Your task to perform on an android device: Show me a list of home improvement items on the Home Depot website. Image 0: 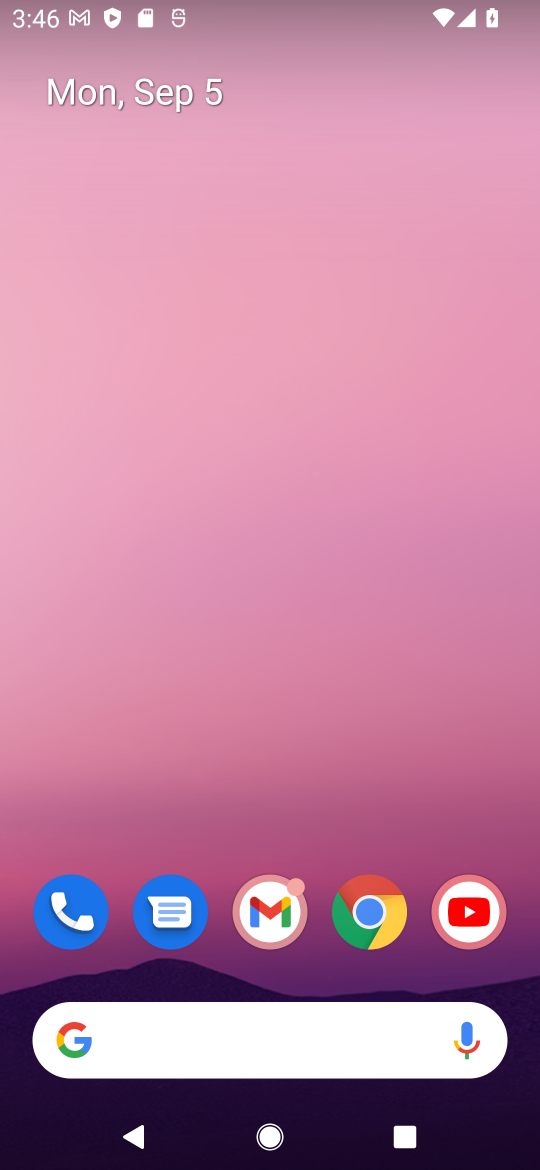
Step 0: click (377, 929)
Your task to perform on an android device: Show me a list of home improvement items on the Home Depot website. Image 1: 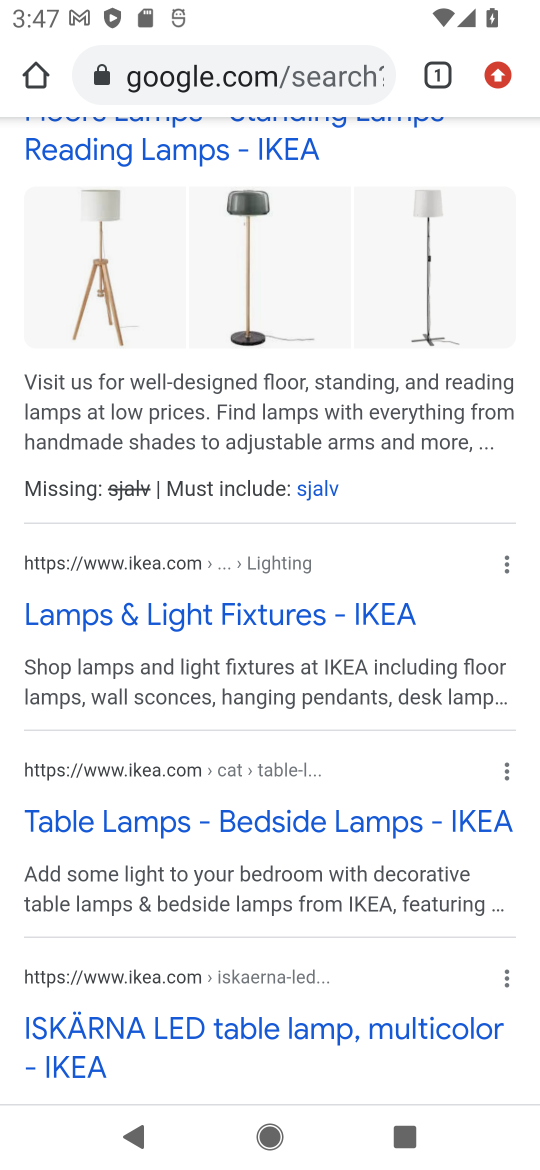
Step 1: click (269, 68)
Your task to perform on an android device: Show me a list of home improvement items on the Home Depot website. Image 2: 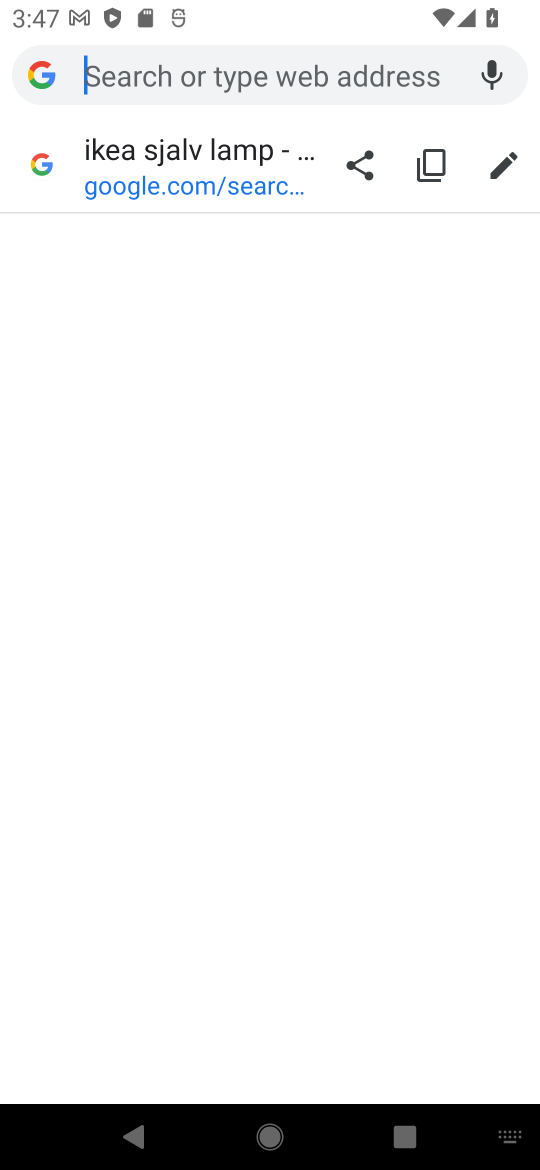
Step 2: type "home depot"
Your task to perform on an android device: Show me a list of home improvement items on the Home Depot website. Image 3: 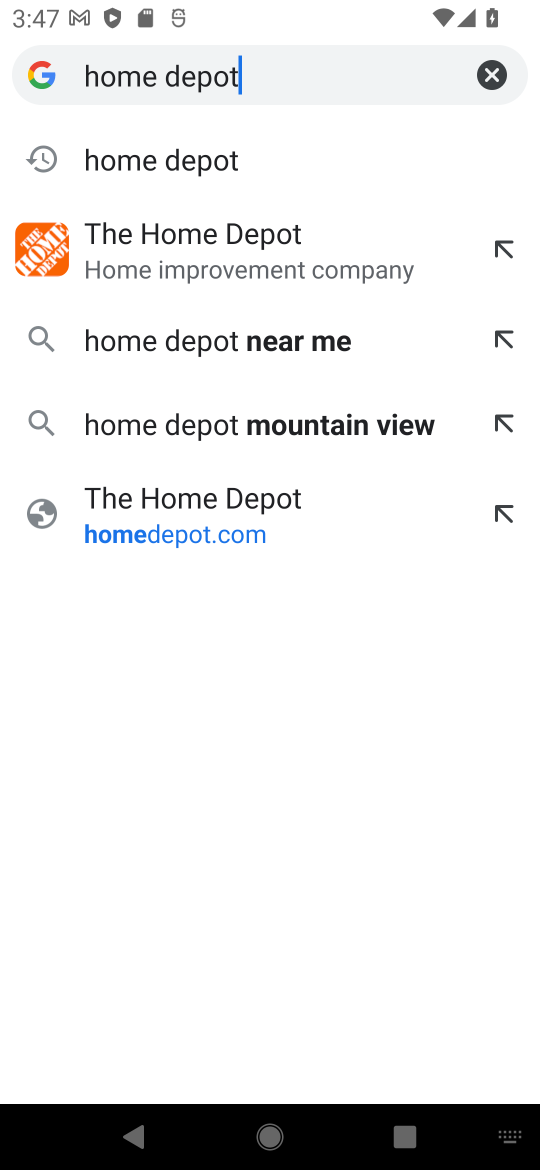
Step 3: press enter
Your task to perform on an android device: Show me a list of home improvement items on the Home Depot website. Image 4: 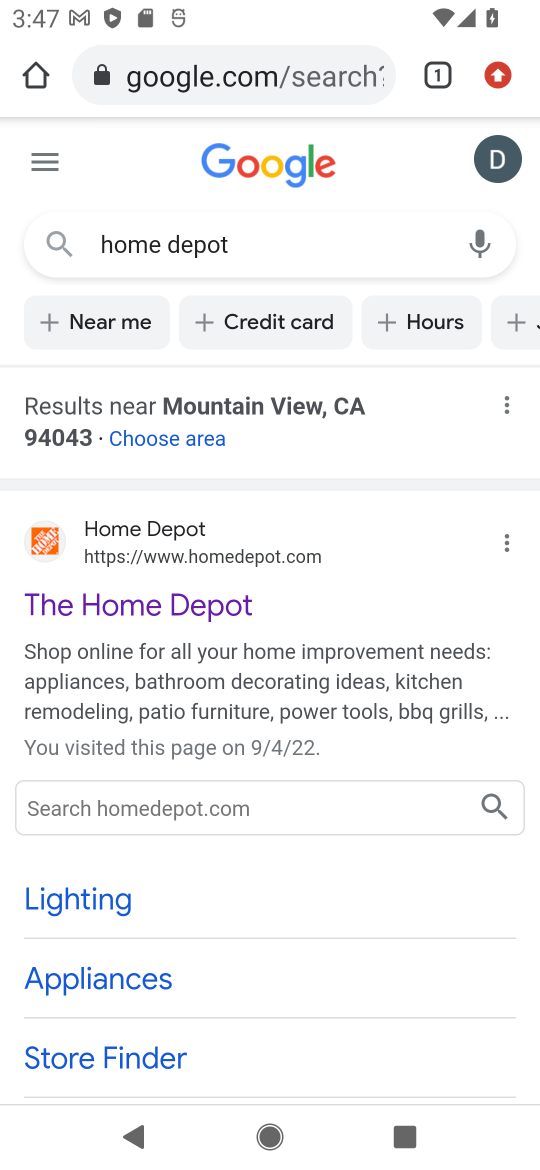
Step 4: click (171, 597)
Your task to perform on an android device: Show me a list of home improvement items on the Home Depot website. Image 5: 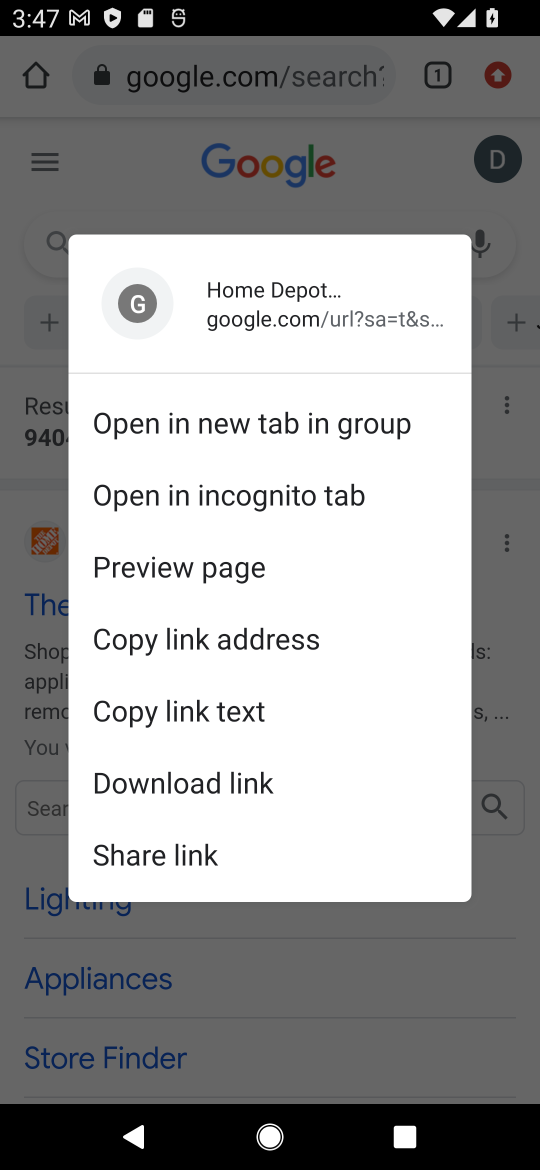
Step 5: click (27, 794)
Your task to perform on an android device: Show me a list of home improvement items on the Home Depot website. Image 6: 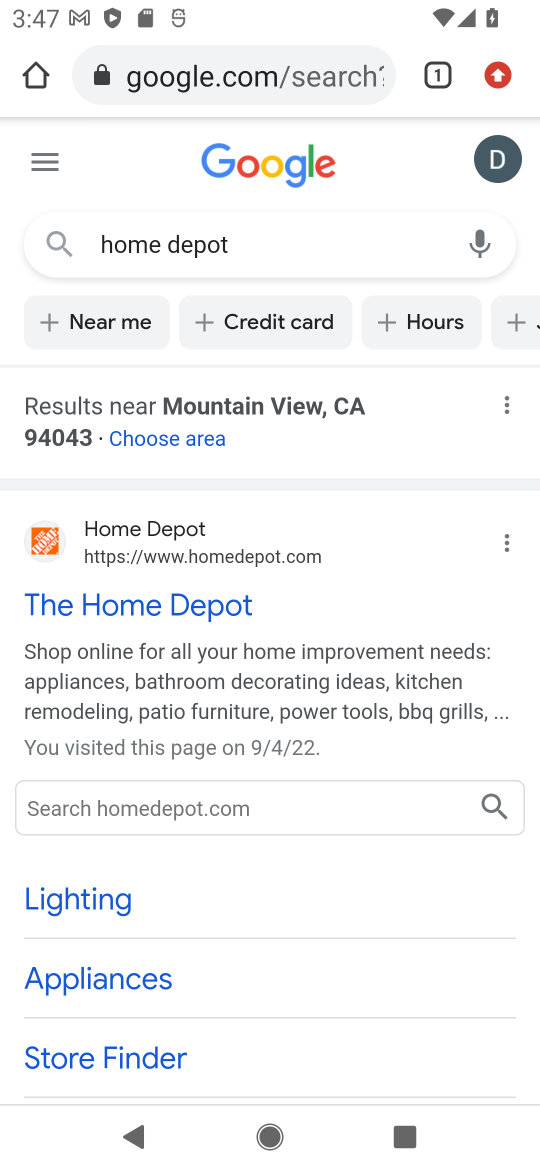
Step 6: click (190, 601)
Your task to perform on an android device: Show me a list of home improvement items on the Home Depot website. Image 7: 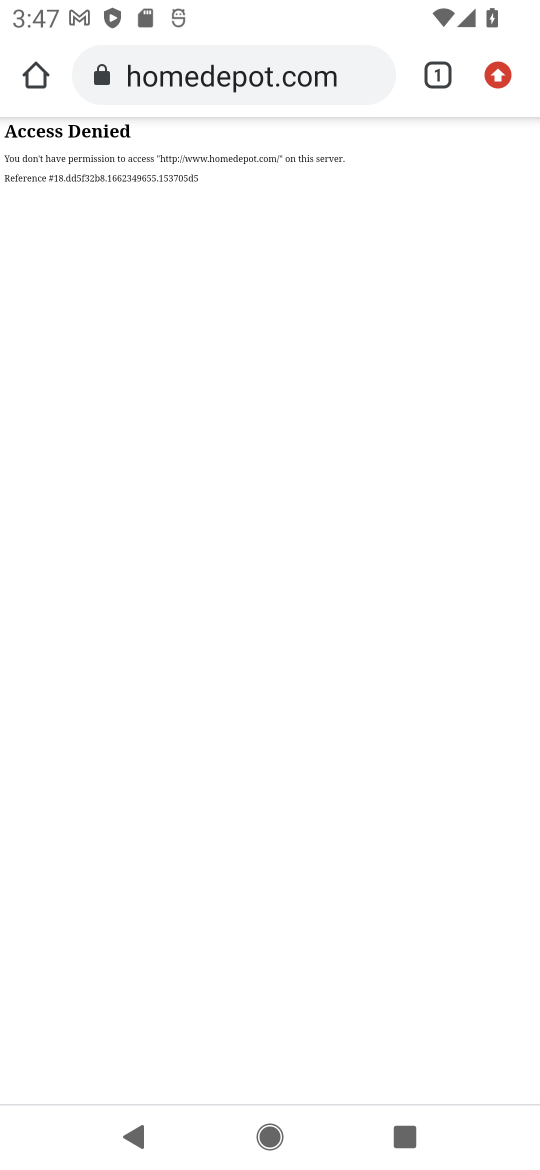
Step 7: task complete